Your task to perform on an android device: Go to wifi settings Image 0: 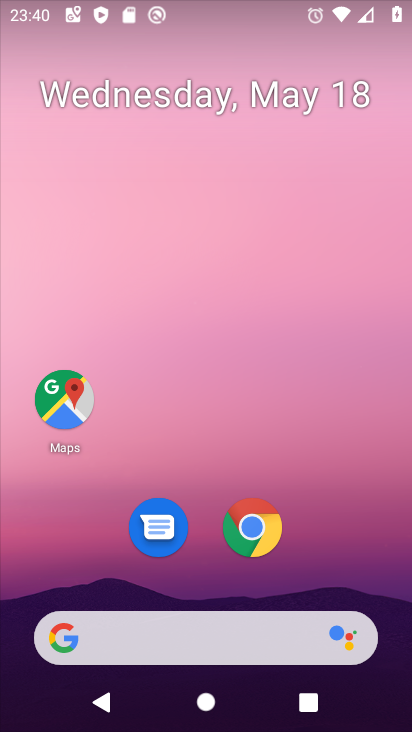
Step 0: drag from (336, 563) to (345, 132)
Your task to perform on an android device: Go to wifi settings Image 1: 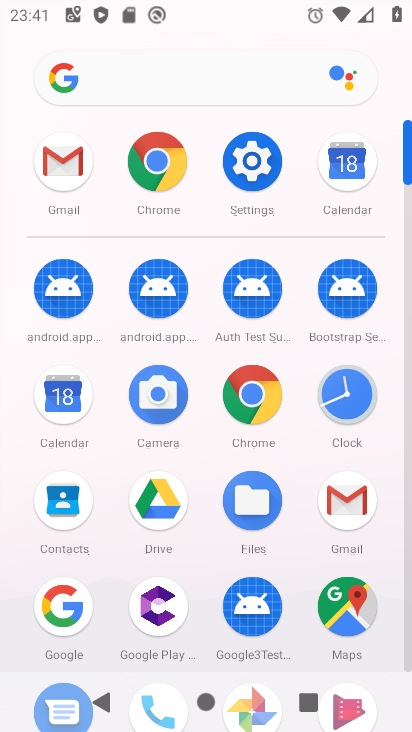
Step 1: click (260, 161)
Your task to perform on an android device: Go to wifi settings Image 2: 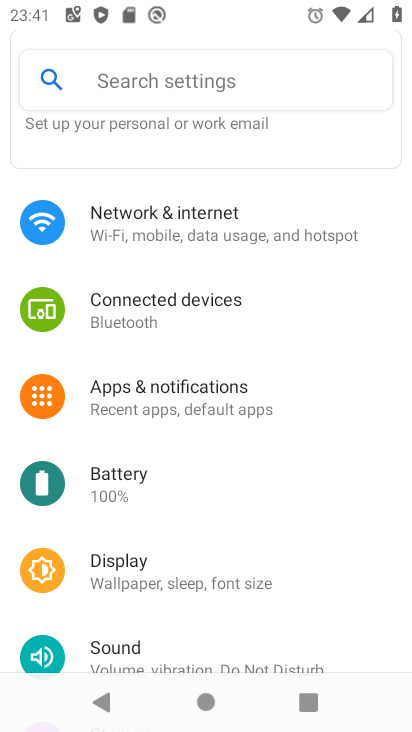
Step 2: drag from (194, 415) to (182, 535)
Your task to perform on an android device: Go to wifi settings Image 3: 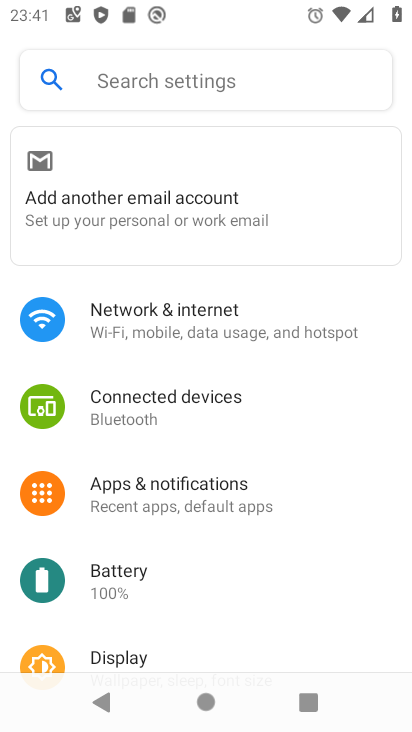
Step 3: click (208, 338)
Your task to perform on an android device: Go to wifi settings Image 4: 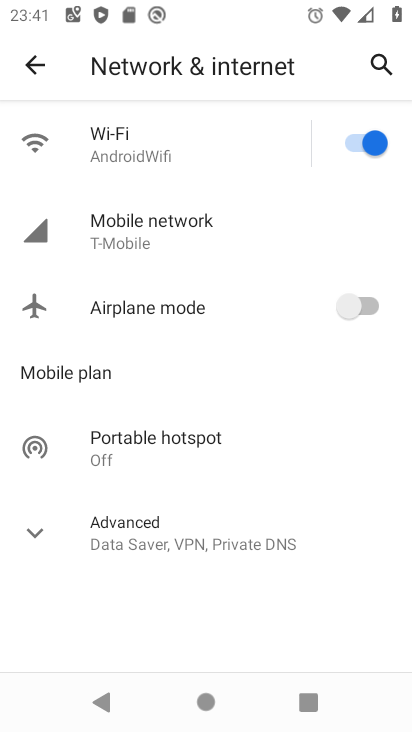
Step 4: task complete